Your task to perform on an android device: Open Google Chrome and open the bookmarks view Image 0: 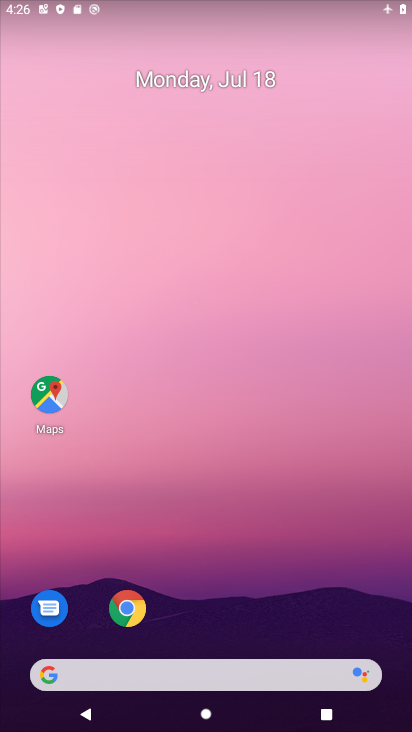
Step 0: drag from (254, 593) to (272, 94)
Your task to perform on an android device: Open Google Chrome and open the bookmarks view Image 1: 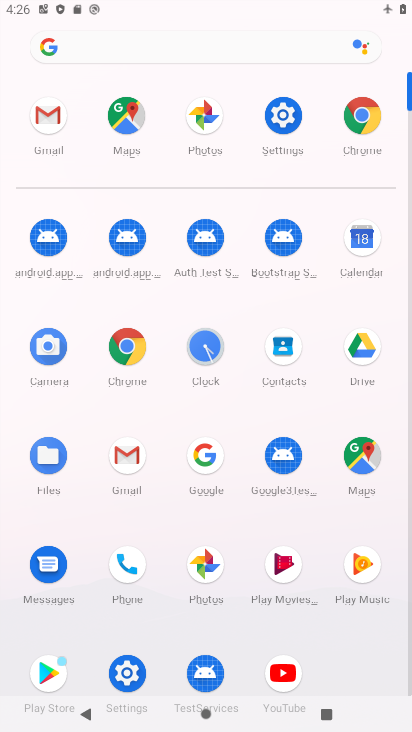
Step 1: click (362, 115)
Your task to perform on an android device: Open Google Chrome and open the bookmarks view Image 2: 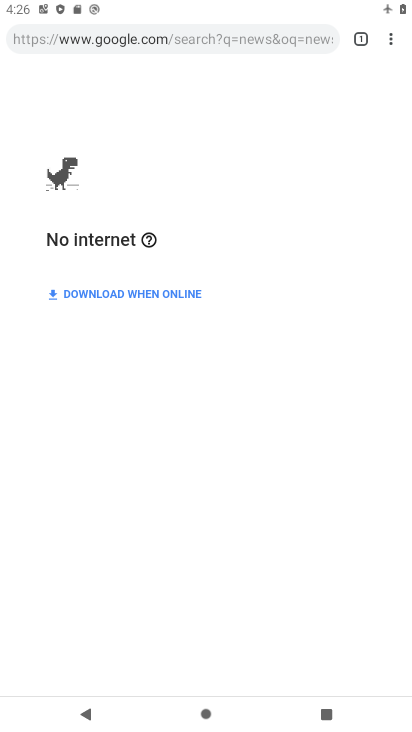
Step 2: task complete